Your task to perform on an android device: Go to Reddit.com Image 0: 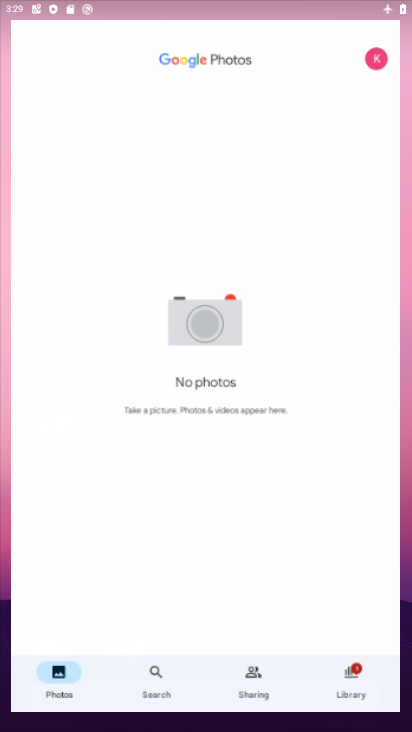
Step 0: drag from (262, 617) to (210, 105)
Your task to perform on an android device: Go to Reddit.com Image 1: 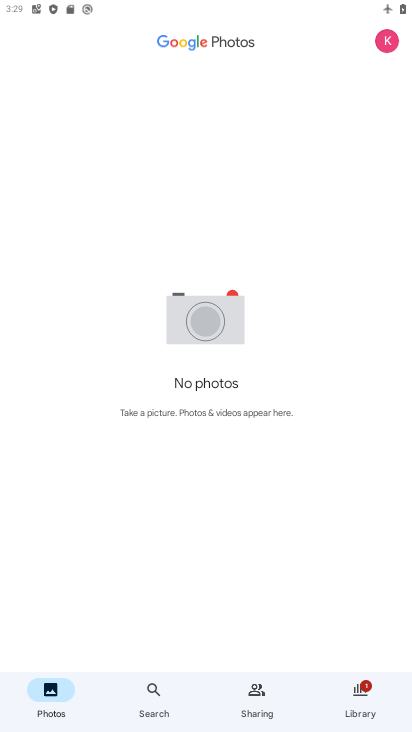
Step 1: press home button
Your task to perform on an android device: Go to Reddit.com Image 2: 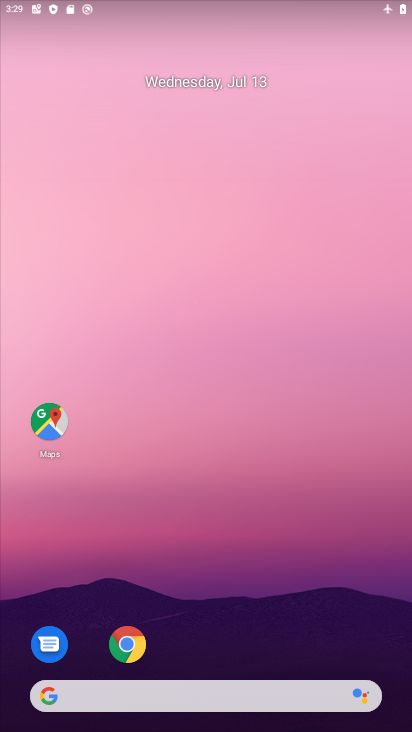
Step 2: drag from (356, 623) to (230, 91)
Your task to perform on an android device: Go to Reddit.com Image 3: 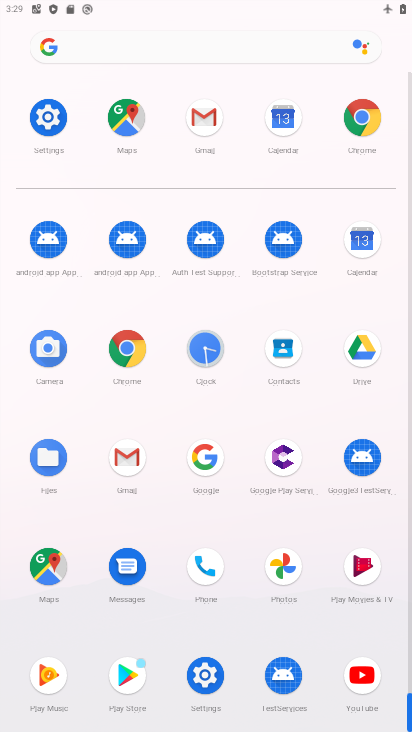
Step 3: click (360, 112)
Your task to perform on an android device: Go to Reddit.com Image 4: 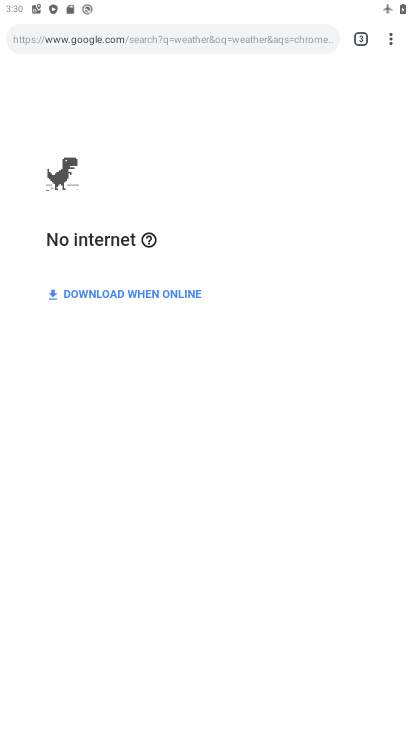
Step 4: click (207, 41)
Your task to perform on an android device: Go to Reddit.com Image 5: 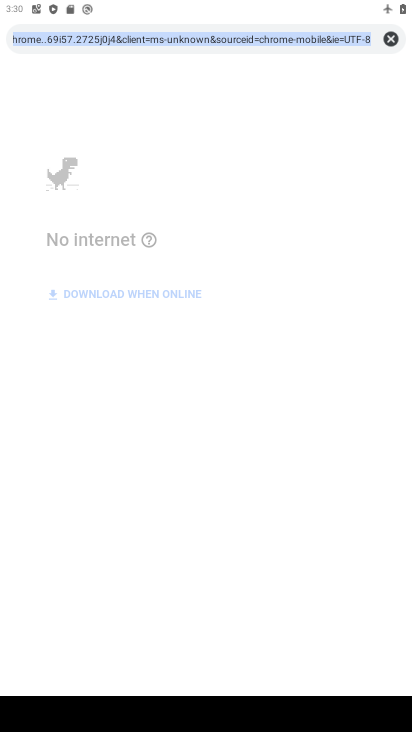
Step 5: click (394, 36)
Your task to perform on an android device: Go to Reddit.com Image 6: 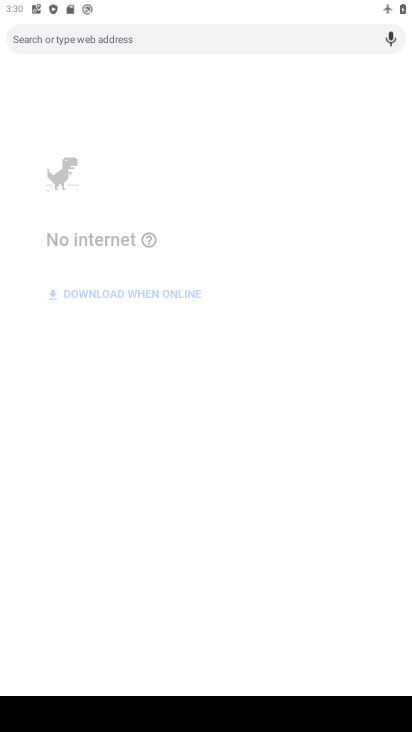
Step 6: type "reddit.com"
Your task to perform on an android device: Go to Reddit.com Image 7: 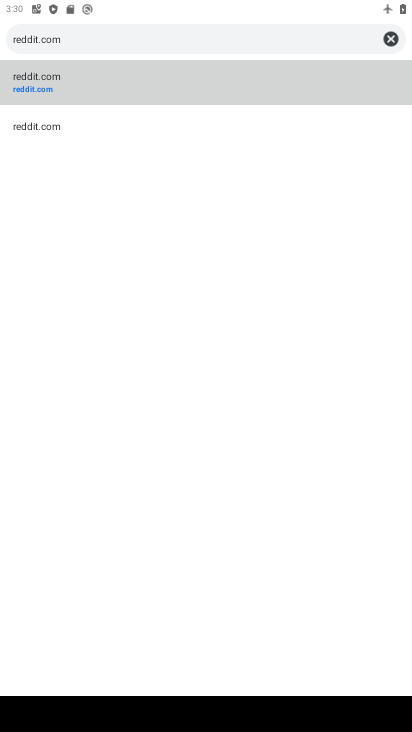
Step 7: click (24, 84)
Your task to perform on an android device: Go to Reddit.com Image 8: 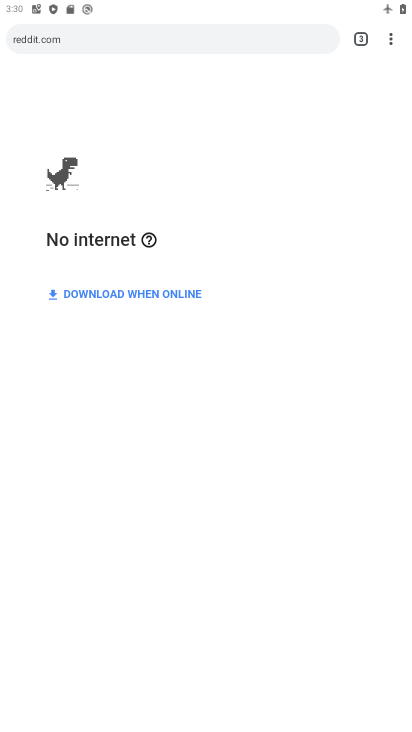
Step 8: task complete